Your task to perform on an android device: Search for hotels in Buenos aires Image 0: 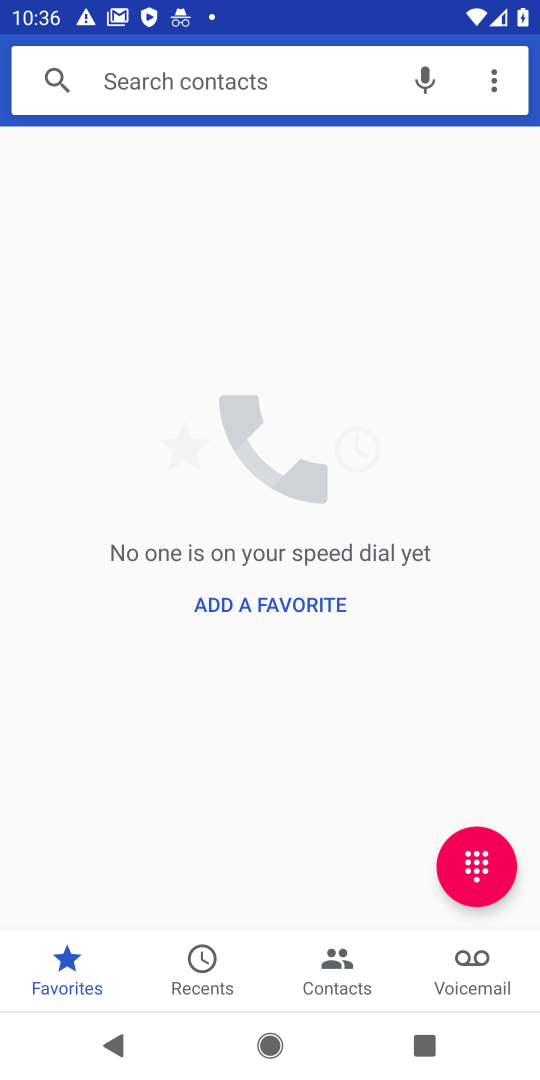
Step 0: press home button
Your task to perform on an android device: Search for hotels in Buenos aires Image 1: 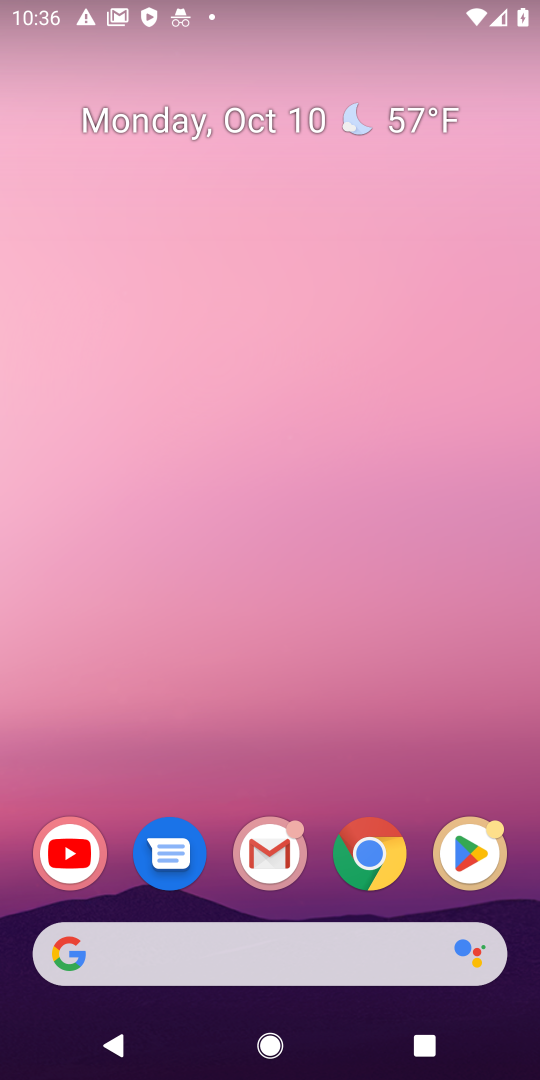
Step 1: click (276, 961)
Your task to perform on an android device: Search for hotels in Buenos aires Image 2: 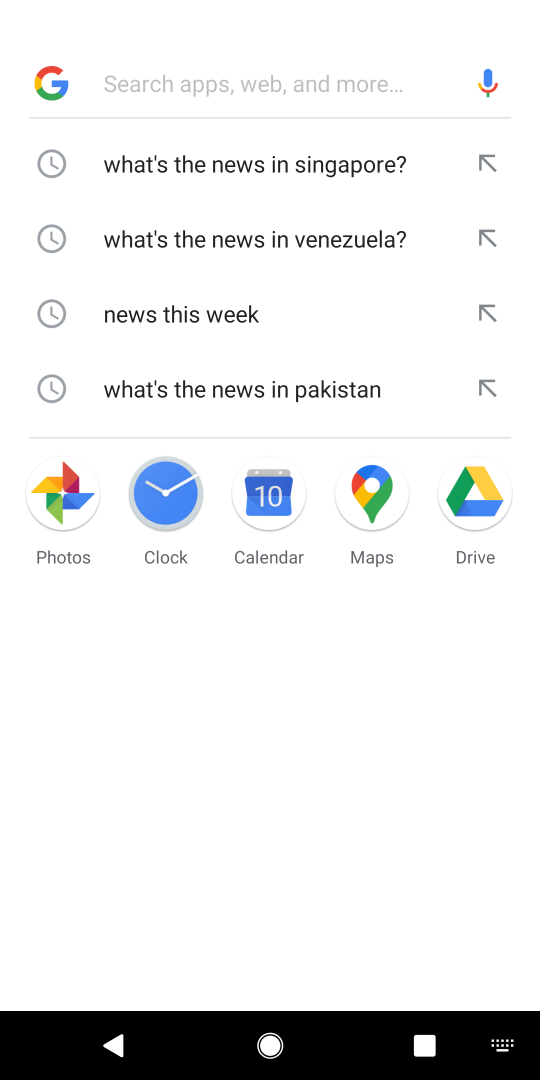
Step 2: type "hotels in Buenos aires"
Your task to perform on an android device: Search for hotels in Buenos aires Image 3: 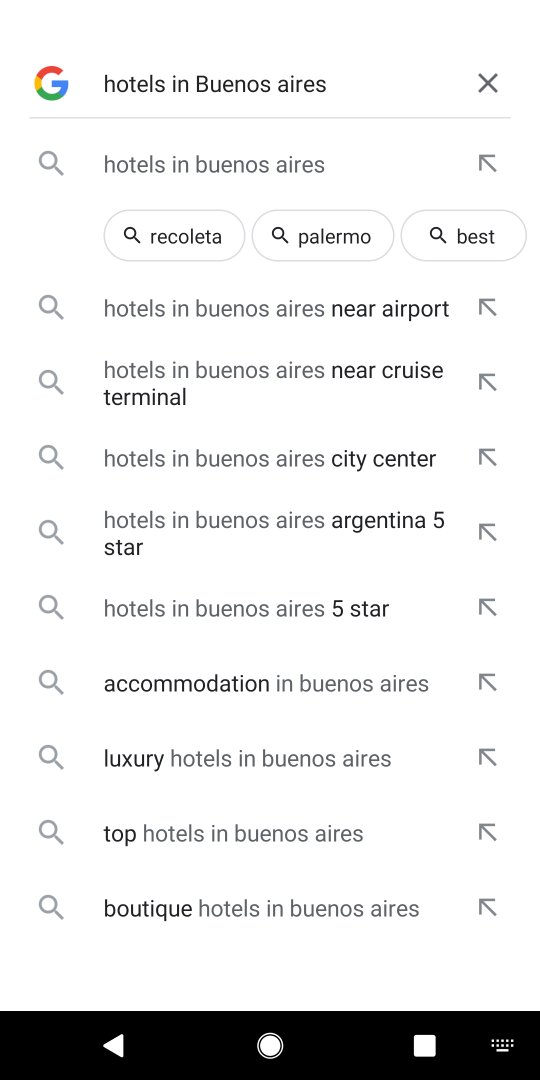
Step 3: press enter
Your task to perform on an android device: Search for hotels in Buenos aires Image 4: 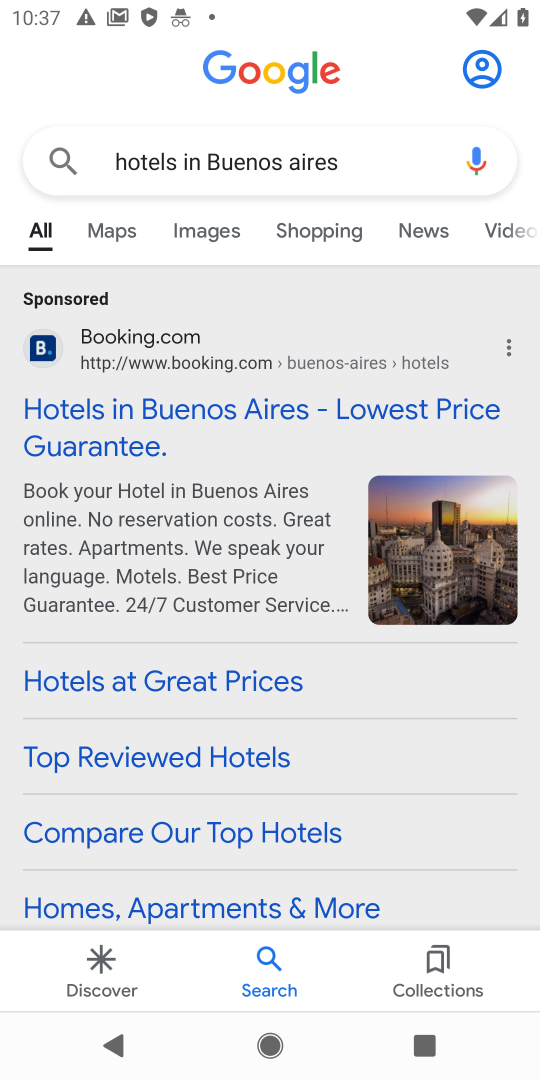
Step 4: click (213, 399)
Your task to perform on an android device: Search for hotels in Buenos aires Image 5: 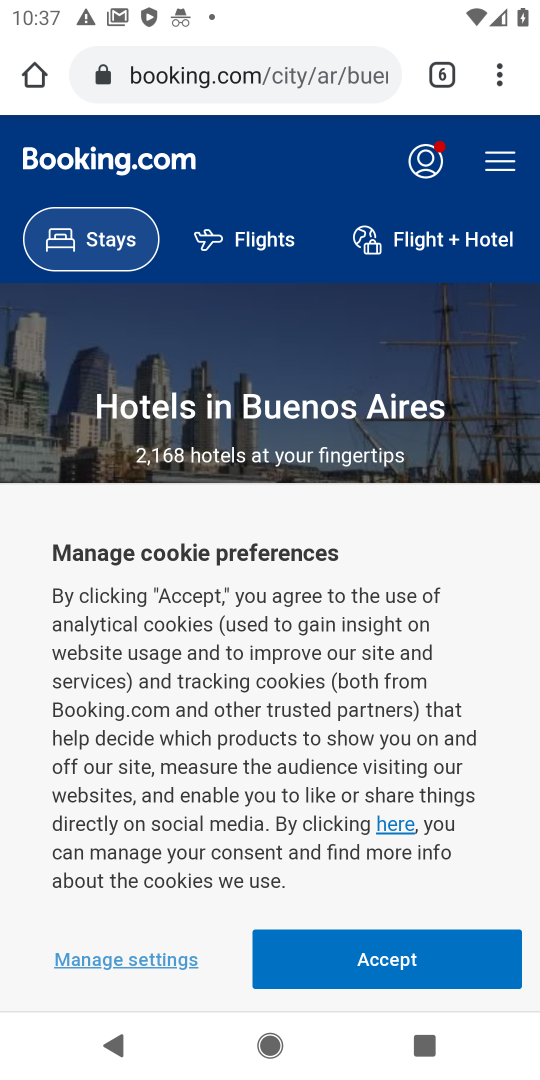
Step 5: click (405, 961)
Your task to perform on an android device: Search for hotels in Buenos aires Image 6: 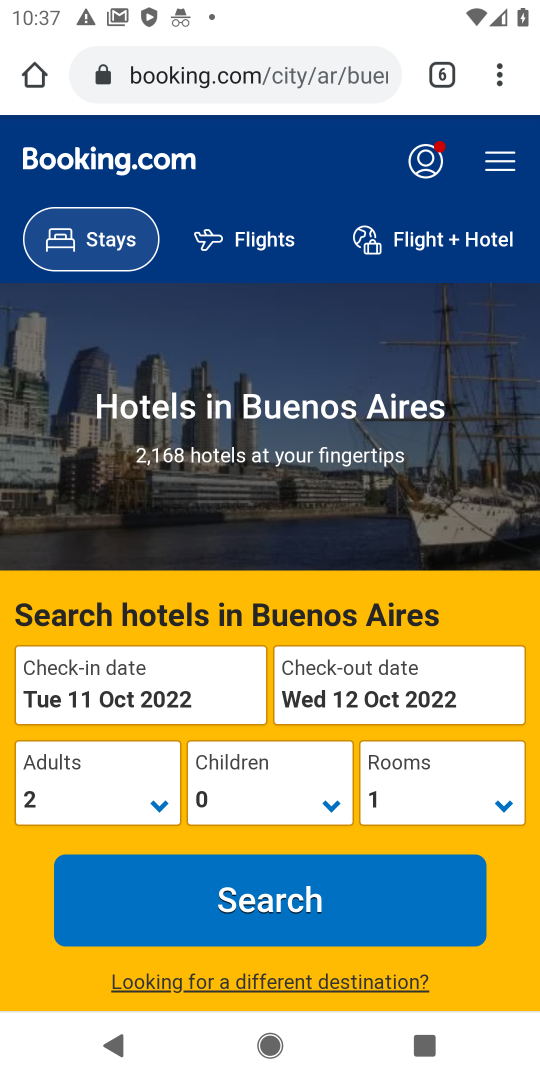
Step 6: click (294, 913)
Your task to perform on an android device: Search for hotels in Buenos aires Image 7: 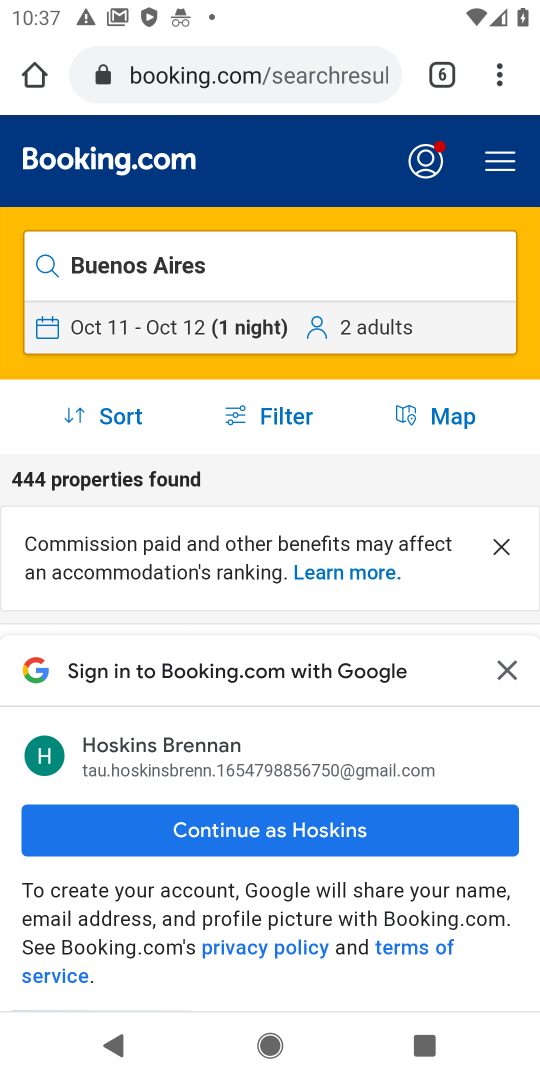
Step 7: click (291, 840)
Your task to perform on an android device: Search for hotels in Buenos aires Image 8: 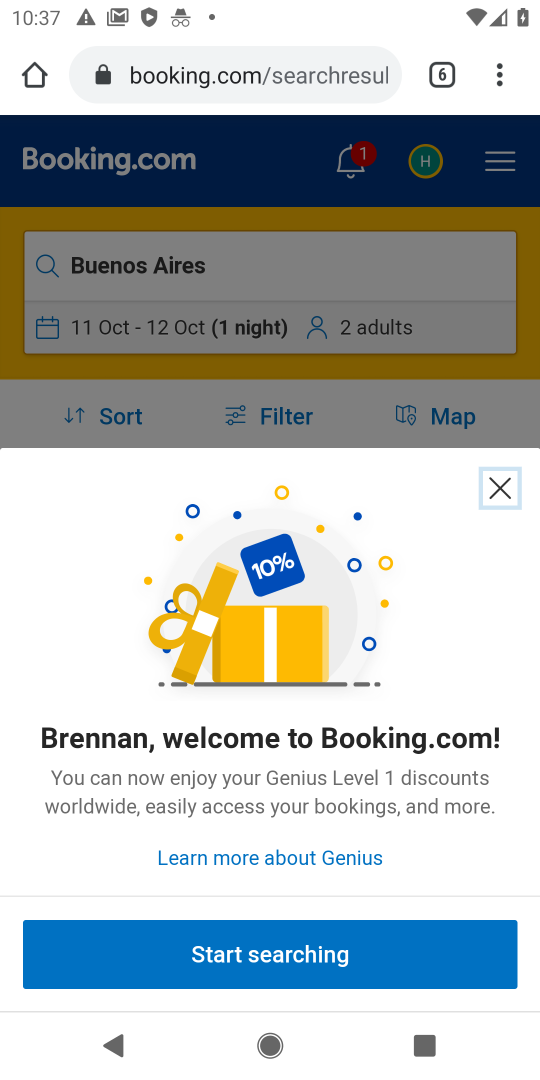
Step 8: task complete